Your task to perform on an android device: Open the phone app and click the voicemail tab. Image 0: 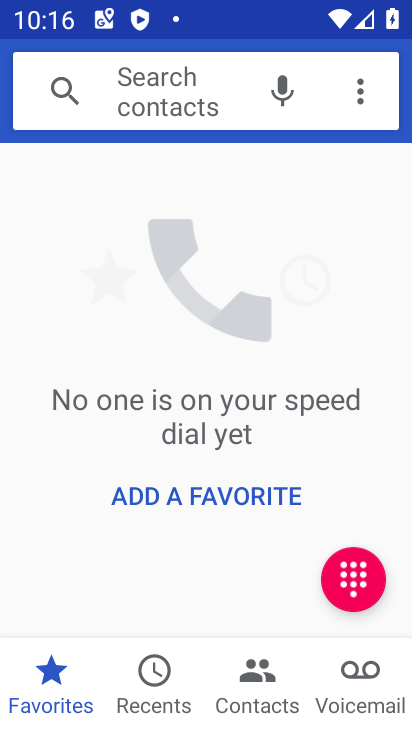
Step 0: press home button
Your task to perform on an android device: Open the phone app and click the voicemail tab. Image 1: 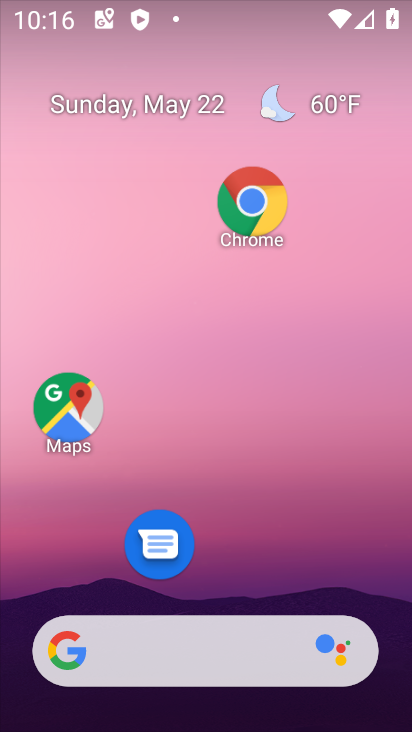
Step 1: drag from (270, 538) to (270, 111)
Your task to perform on an android device: Open the phone app and click the voicemail tab. Image 2: 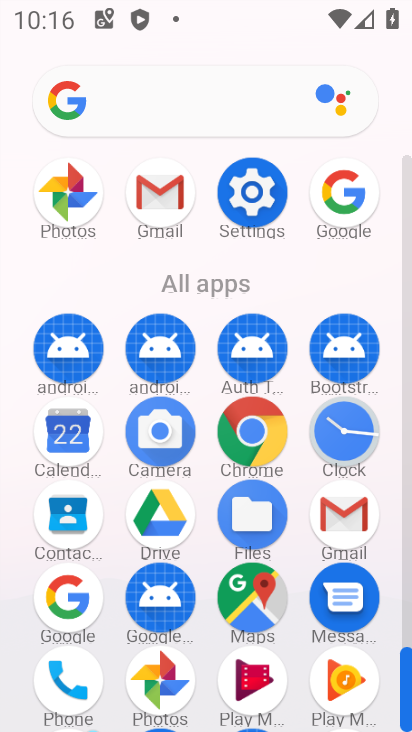
Step 2: click (69, 680)
Your task to perform on an android device: Open the phone app and click the voicemail tab. Image 3: 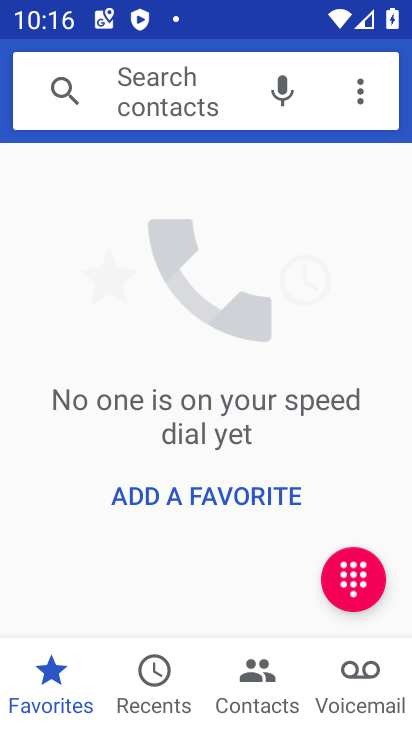
Step 3: click (372, 675)
Your task to perform on an android device: Open the phone app and click the voicemail tab. Image 4: 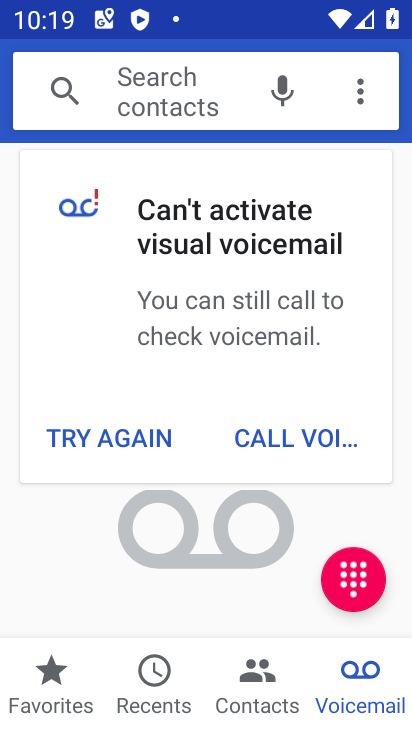
Step 4: task complete